Your task to perform on an android device: toggle sleep mode Image 0: 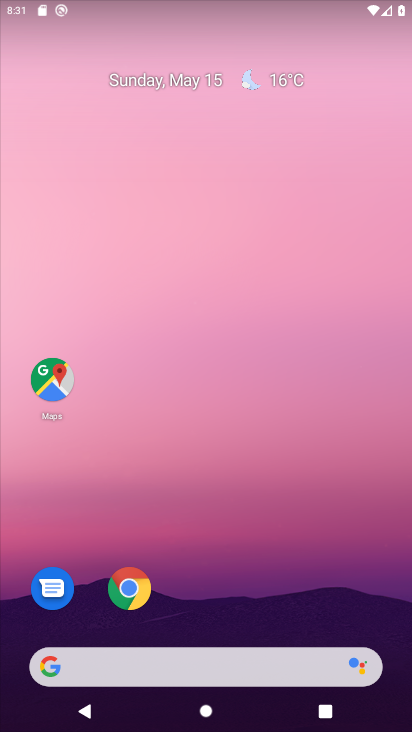
Step 0: drag from (277, 566) to (259, 98)
Your task to perform on an android device: toggle sleep mode Image 1: 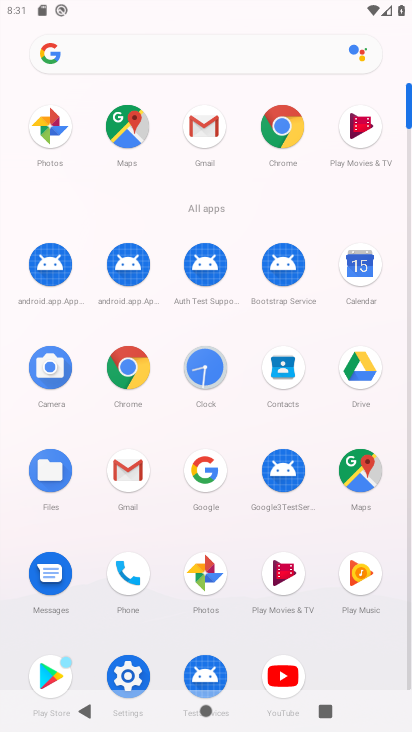
Step 1: click (138, 675)
Your task to perform on an android device: toggle sleep mode Image 2: 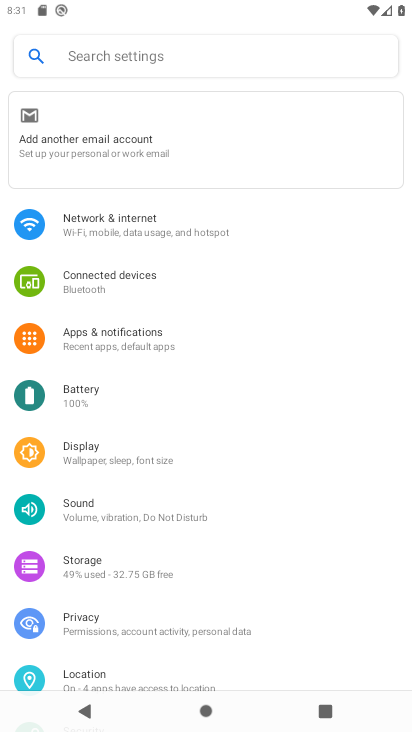
Step 2: click (123, 452)
Your task to perform on an android device: toggle sleep mode Image 3: 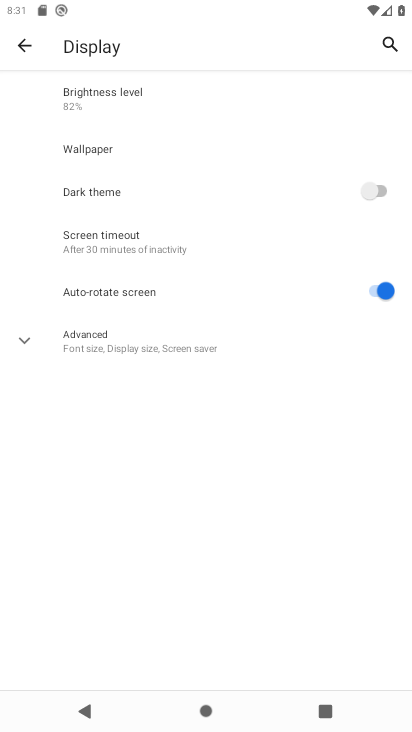
Step 3: click (16, 339)
Your task to perform on an android device: toggle sleep mode Image 4: 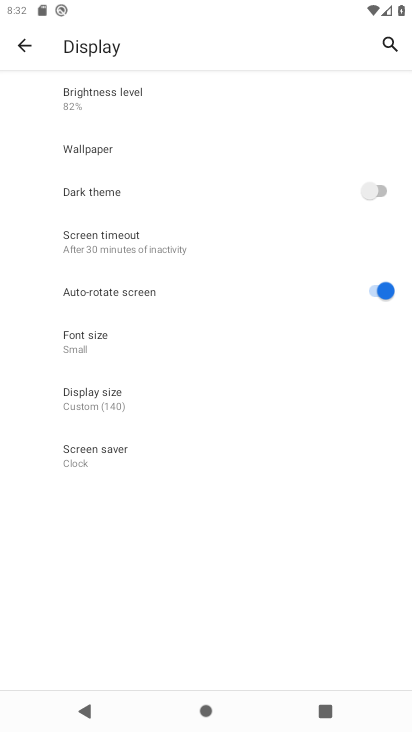
Step 4: task complete